Your task to perform on an android device: Search for acer nitro on walmart.com, select the first entry, add it to the cart, then select checkout. Image 0: 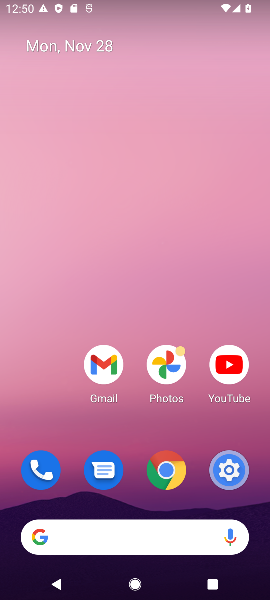
Step 0: click (123, 543)
Your task to perform on an android device: Search for acer nitro on walmart.com, select the first entry, add it to the cart, then select checkout. Image 1: 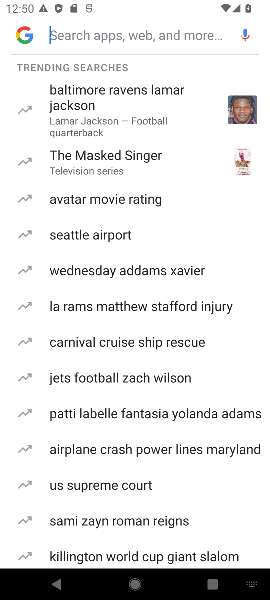
Step 1: type "walmart"
Your task to perform on an android device: Search for acer nitro on walmart.com, select the first entry, add it to the cart, then select checkout. Image 2: 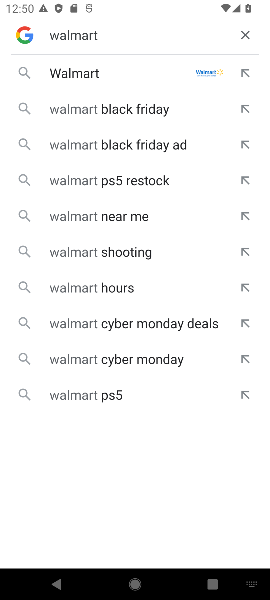
Step 2: click (115, 86)
Your task to perform on an android device: Search for acer nitro on walmart.com, select the first entry, add it to the cart, then select checkout. Image 3: 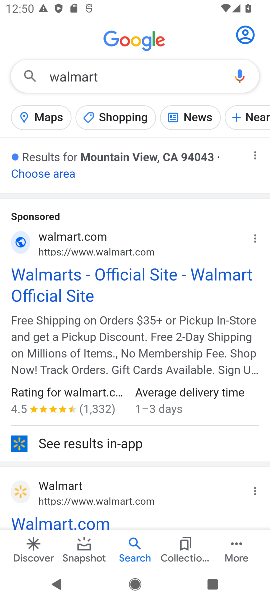
Step 3: click (75, 285)
Your task to perform on an android device: Search for acer nitro on walmart.com, select the first entry, add it to the cart, then select checkout. Image 4: 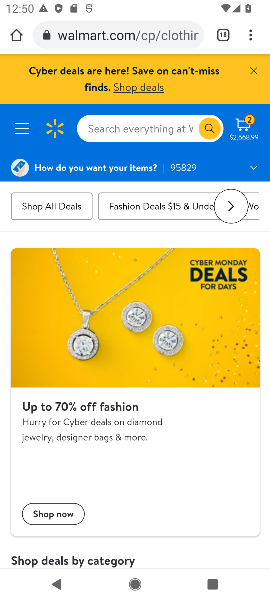
Step 4: task complete